Your task to perform on an android device: add a contact in the contacts app Image 0: 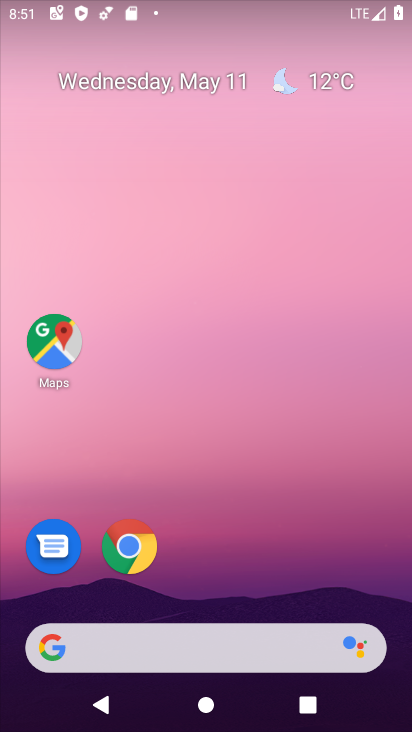
Step 0: drag from (383, 604) to (294, 13)
Your task to perform on an android device: add a contact in the contacts app Image 1: 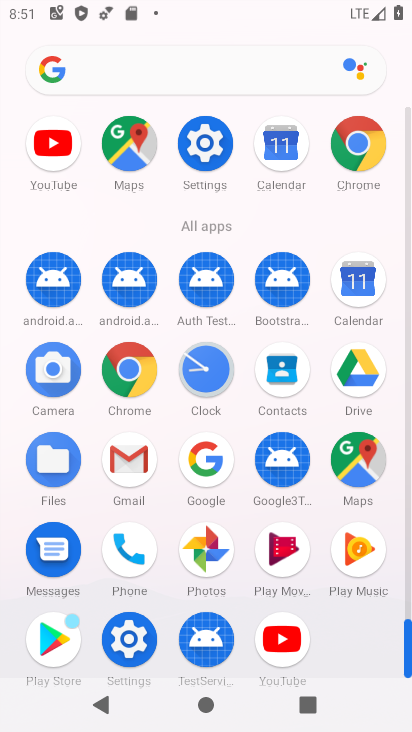
Step 1: click (280, 371)
Your task to perform on an android device: add a contact in the contacts app Image 2: 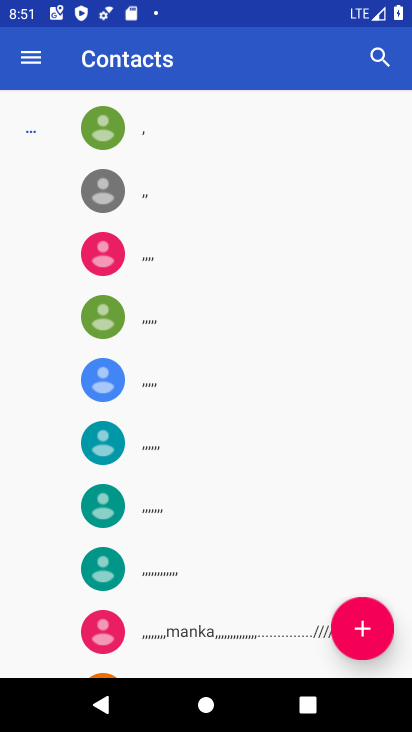
Step 2: click (362, 620)
Your task to perform on an android device: add a contact in the contacts app Image 3: 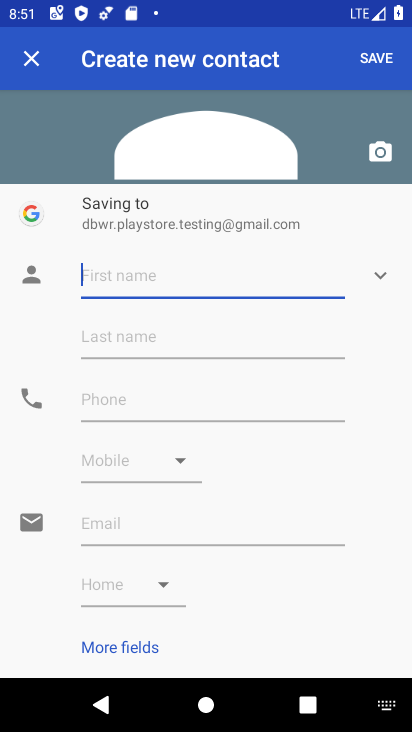
Step 3: type "bgggdg"
Your task to perform on an android device: add a contact in the contacts app Image 4: 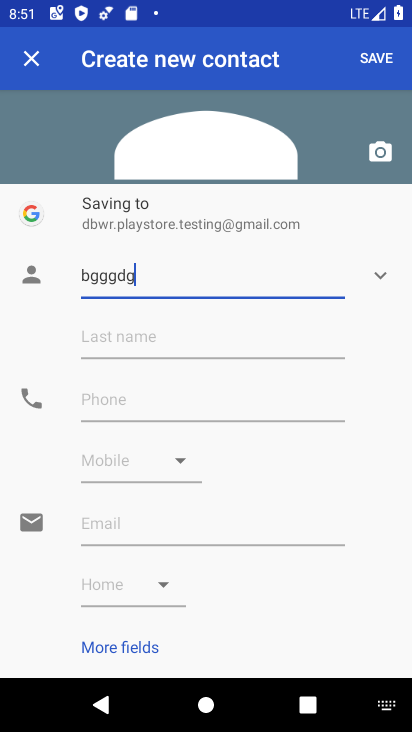
Step 4: click (112, 399)
Your task to perform on an android device: add a contact in the contacts app Image 5: 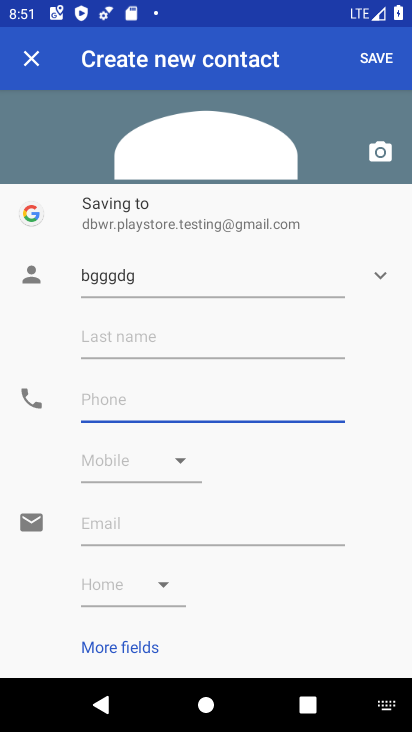
Step 5: type "9678756"
Your task to perform on an android device: add a contact in the contacts app Image 6: 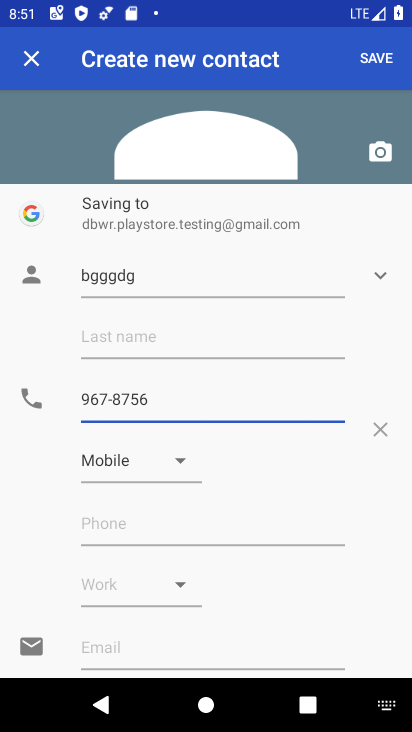
Step 6: click (181, 453)
Your task to perform on an android device: add a contact in the contacts app Image 7: 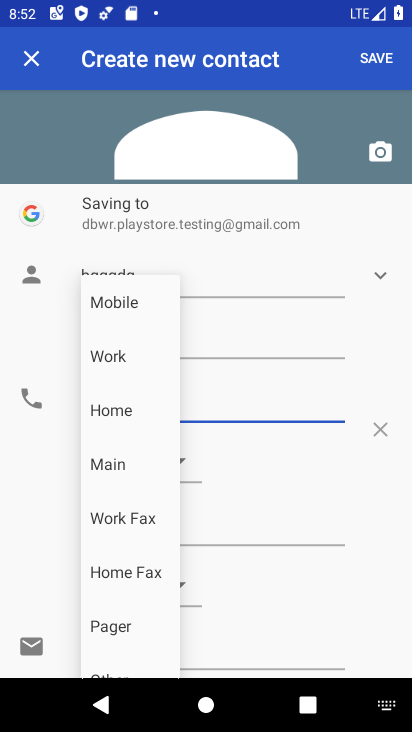
Step 7: click (112, 360)
Your task to perform on an android device: add a contact in the contacts app Image 8: 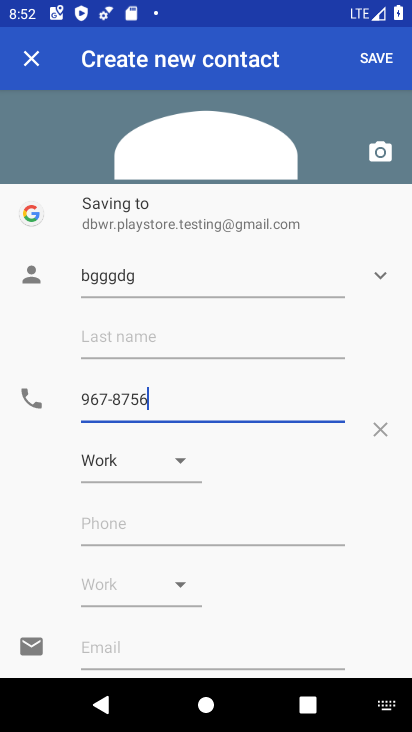
Step 8: click (379, 55)
Your task to perform on an android device: add a contact in the contacts app Image 9: 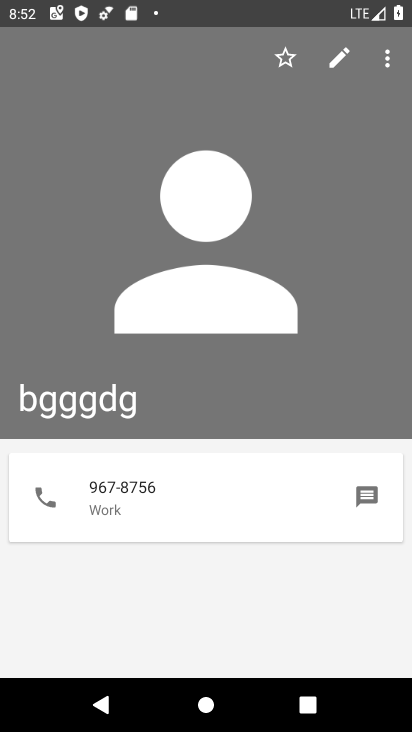
Step 9: task complete